Your task to perform on an android device: Search for pizza restaurants on Maps Image 0: 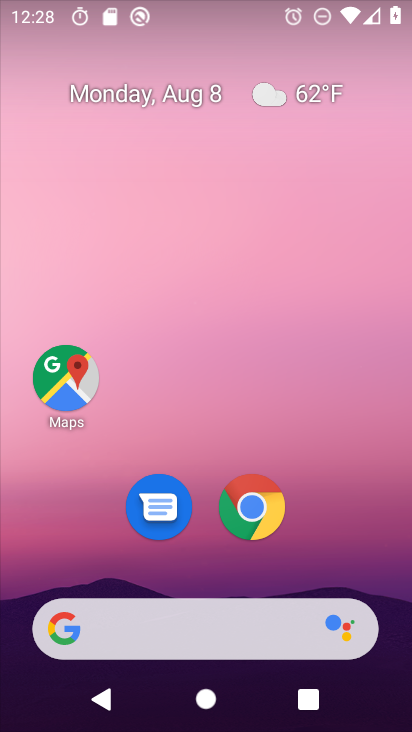
Step 0: drag from (338, 494) to (286, 9)
Your task to perform on an android device: Search for pizza restaurants on Maps Image 1: 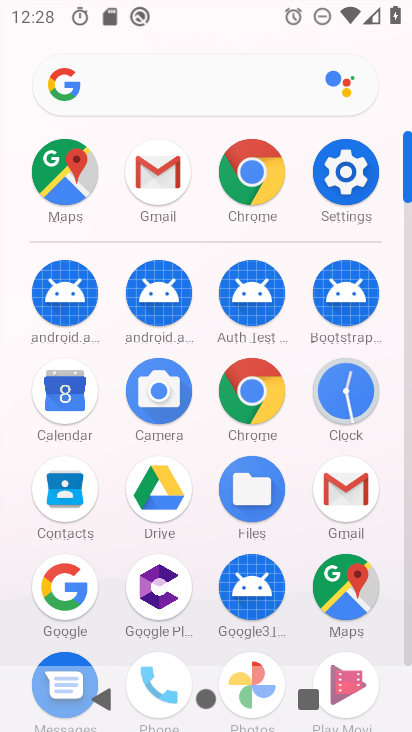
Step 1: click (363, 591)
Your task to perform on an android device: Search for pizza restaurants on Maps Image 2: 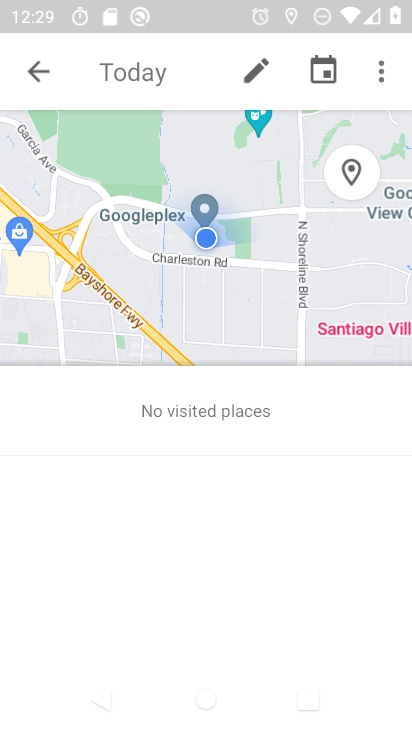
Step 2: click (39, 68)
Your task to perform on an android device: Search for pizza restaurants on Maps Image 3: 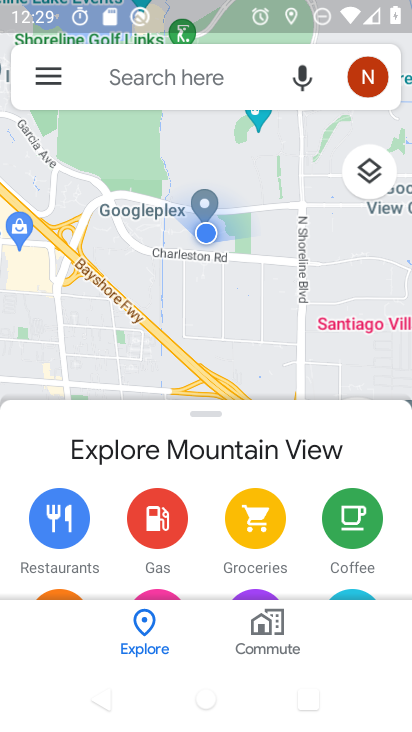
Step 3: click (196, 86)
Your task to perform on an android device: Search for pizza restaurants on Maps Image 4: 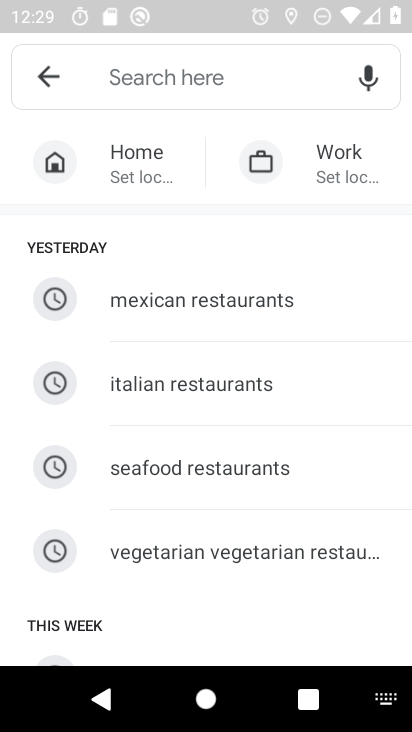
Step 4: type ""
Your task to perform on an android device: Search for pizza restaurants on Maps Image 5: 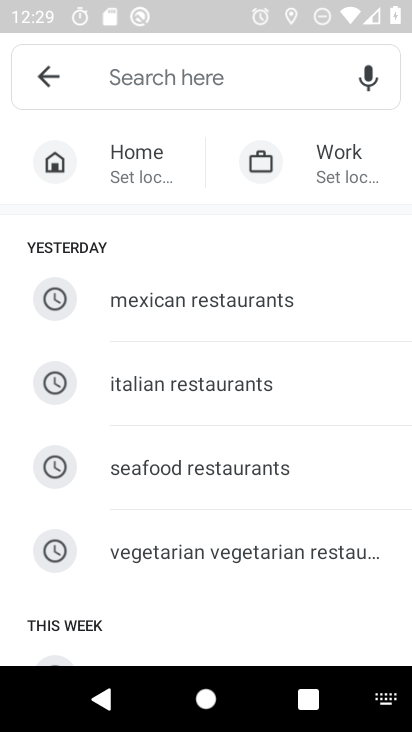
Step 5: type "pizza restaurants"
Your task to perform on an android device: Search for pizza restaurants on Maps Image 6: 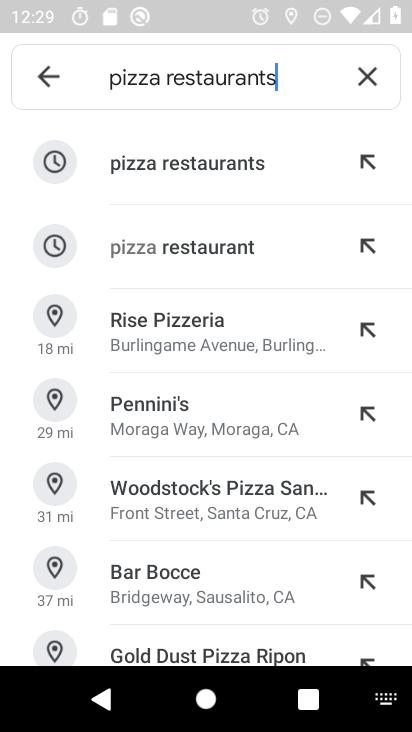
Step 6: press enter
Your task to perform on an android device: Search for pizza restaurants on Maps Image 7: 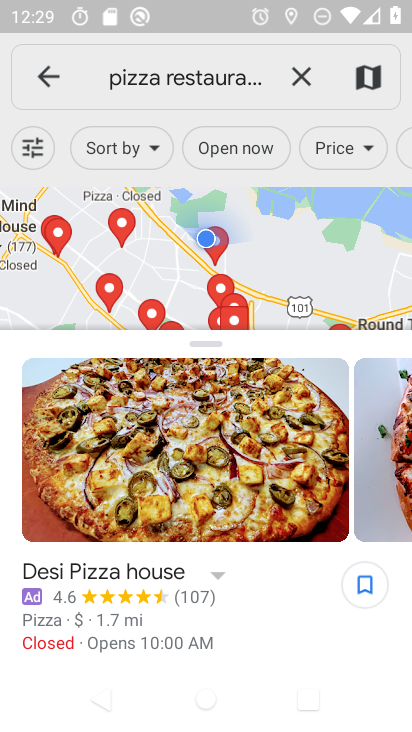
Step 7: task complete